Your task to perform on an android device: open app "Nova Launcher" (install if not already installed) and go to login screen Image 0: 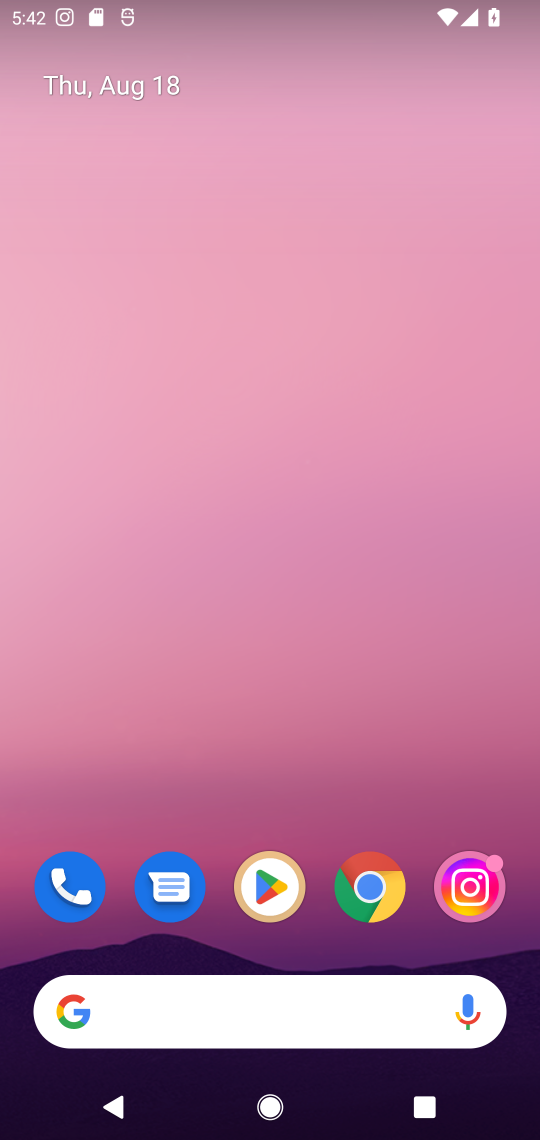
Step 0: click (268, 889)
Your task to perform on an android device: open app "Nova Launcher" (install if not already installed) and go to login screen Image 1: 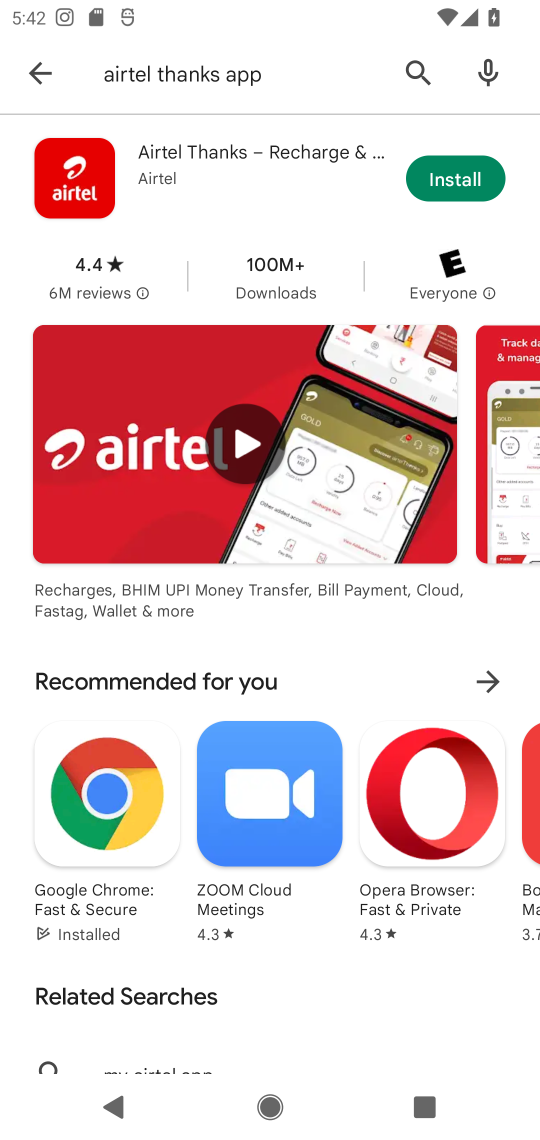
Step 1: click (412, 65)
Your task to perform on an android device: open app "Nova Launcher" (install if not already installed) and go to login screen Image 2: 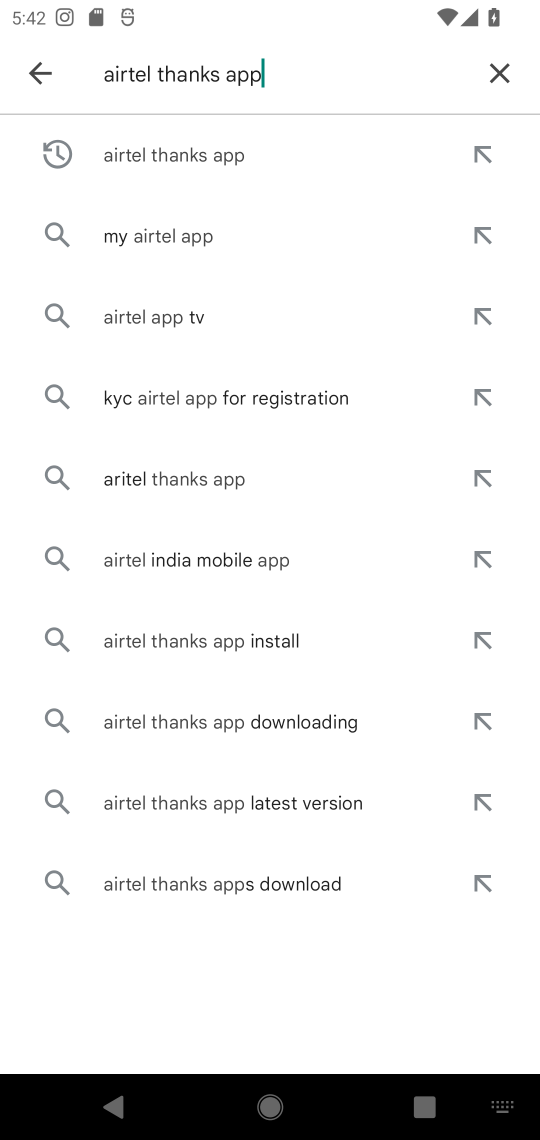
Step 2: click (497, 66)
Your task to perform on an android device: open app "Nova Launcher" (install if not already installed) and go to login screen Image 3: 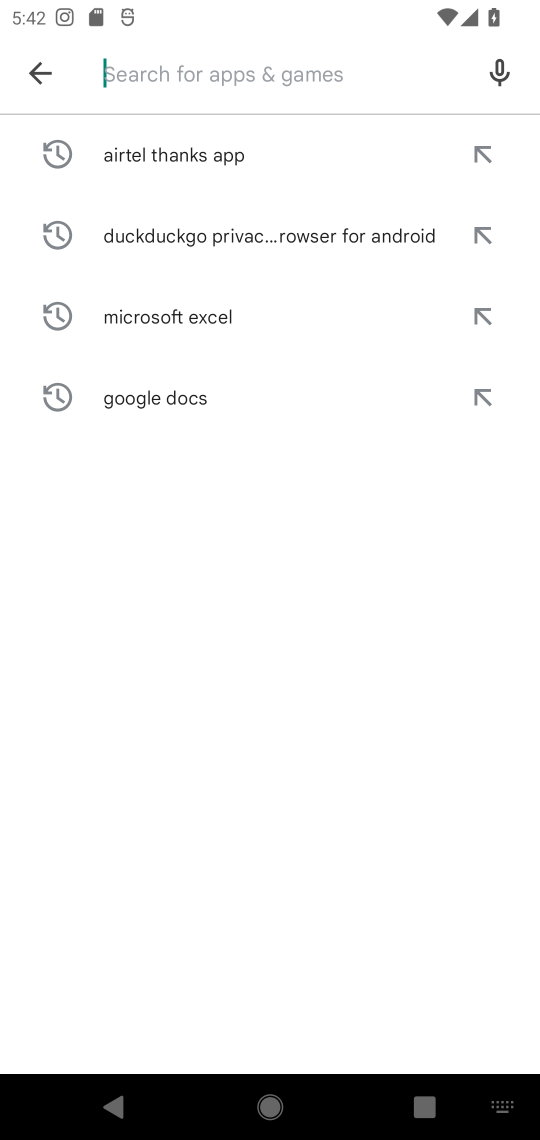
Step 3: type "Nova Launcher"
Your task to perform on an android device: open app "Nova Launcher" (install if not already installed) and go to login screen Image 4: 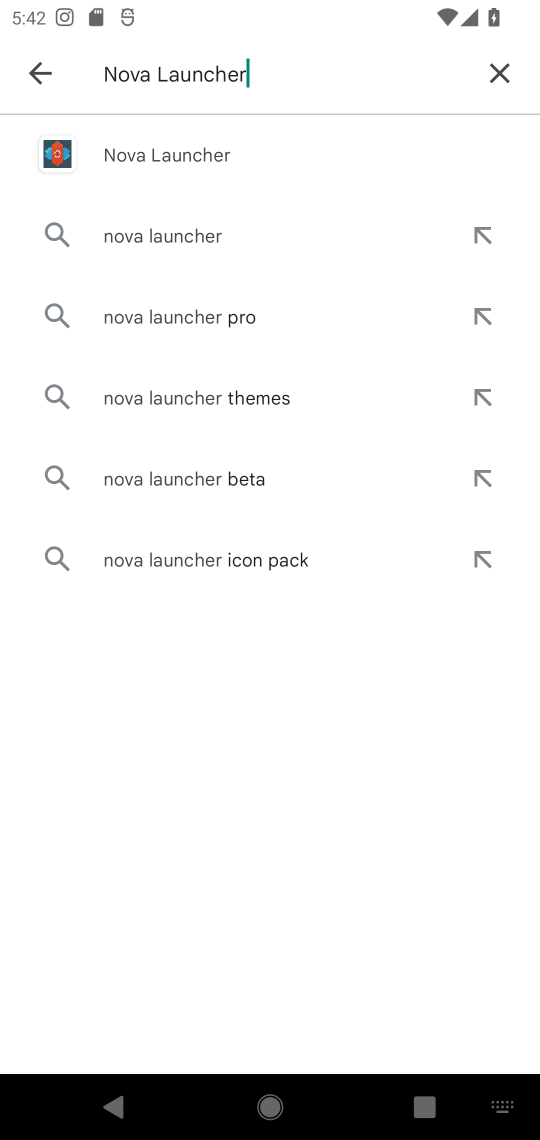
Step 4: click (184, 158)
Your task to perform on an android device: open app "Nova Launcher" (install if not already installed) and go to login screen Image 5: 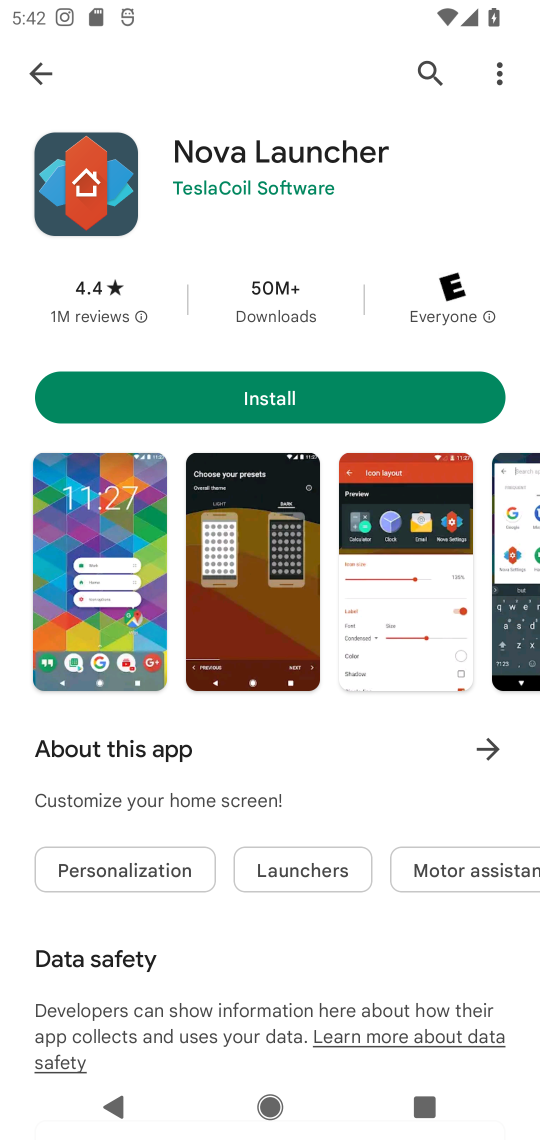
Step 5: click (286, 404)
Your task to perform on an android device: open app "Nova Launcher" (install if not already installed) and go to login screen Image 6: 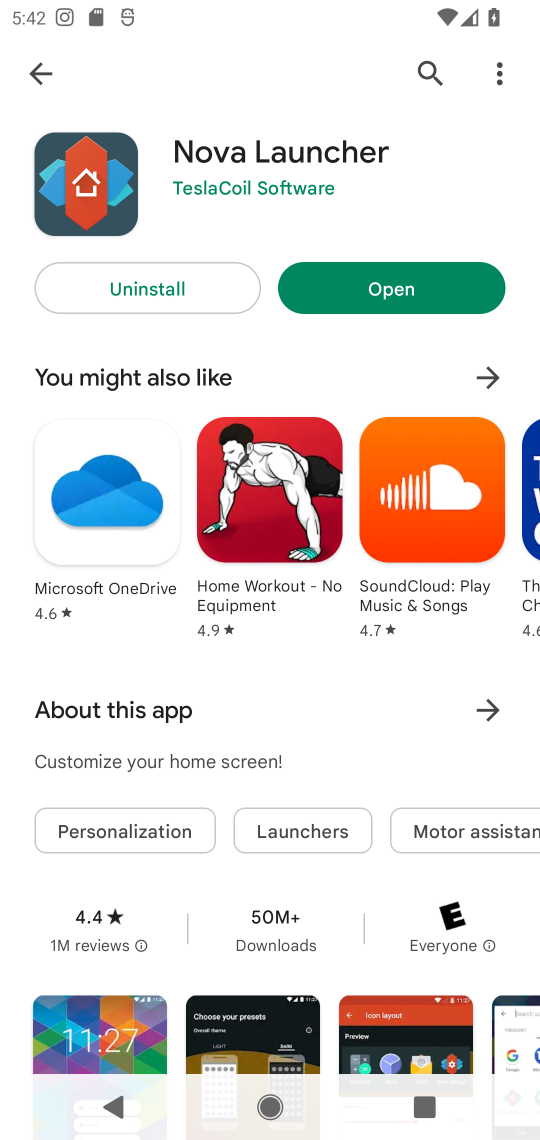
Step 6: click (374, 290)
Your task to perform on an android device: open app "Nova Launcher" (install if not already installed) and go to login screen Image 7: 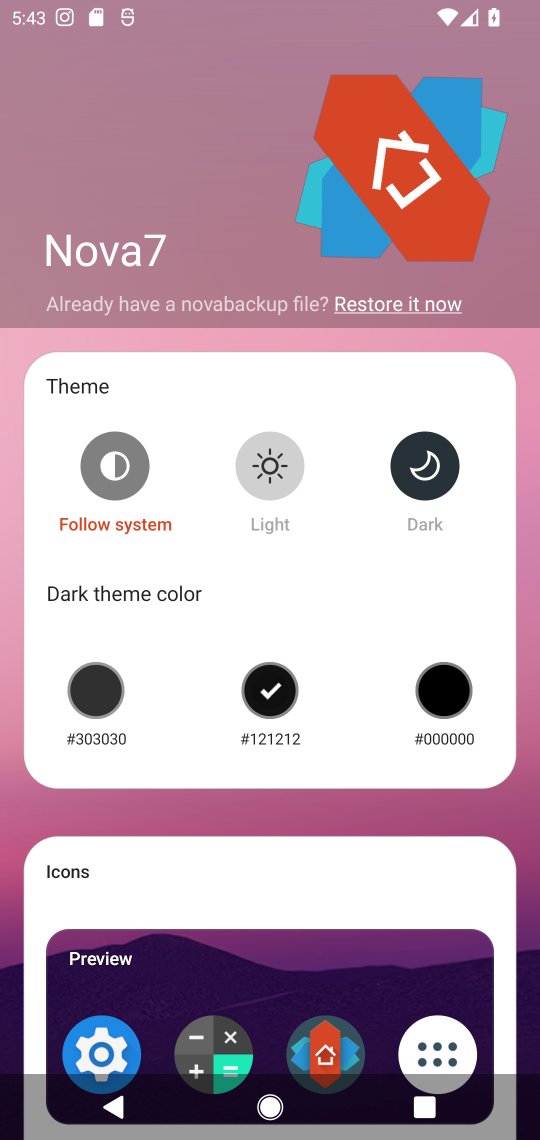
Step 7: task complete